Your task to perform on an android device: Turn on the flashlight Image 0: 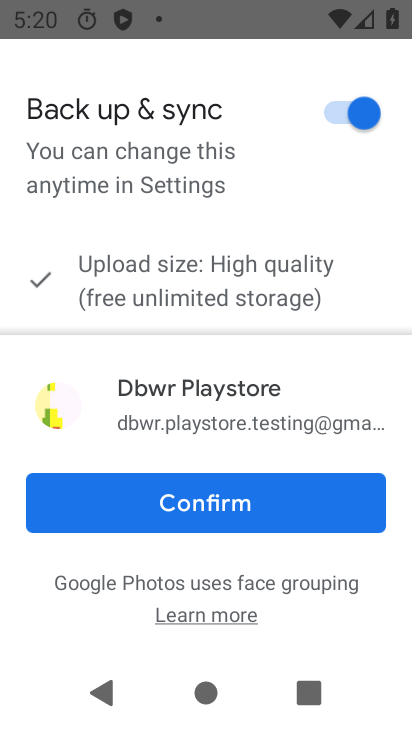
Step 0: press home button
Your task to perform on an android device: Turn on the flashlight Image 1: 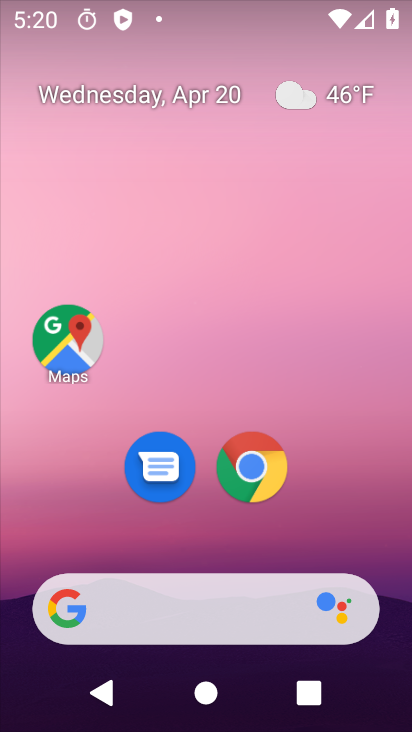
Step 1: drag from (243, 257) to (314, 17)
Your task to perform on an android device: Turn on the flashlight Image 2: 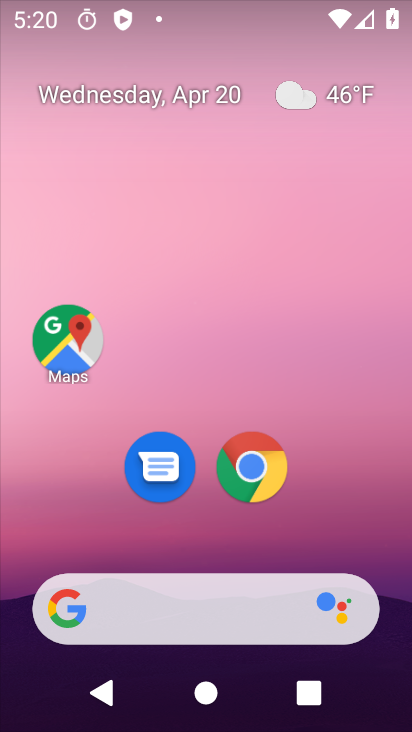
Step 2: drag from (214, 563) to (296, 1)
Your task to perform on an android device: Turn on the flashlight Image 3: 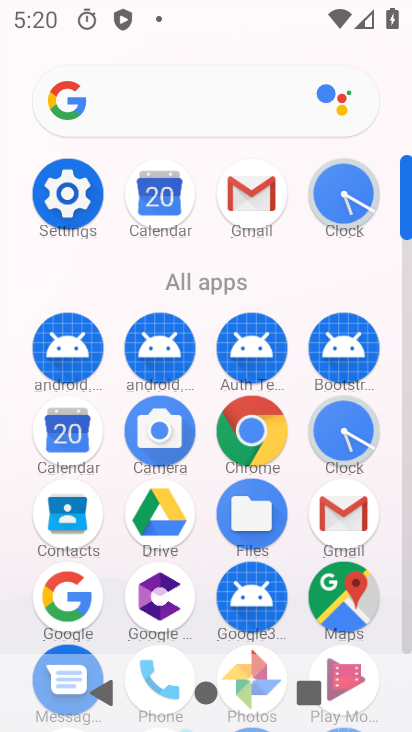
Step 3: click (70, 187)
Your task to perform on an android device: Turn on the flashlight Image 4: 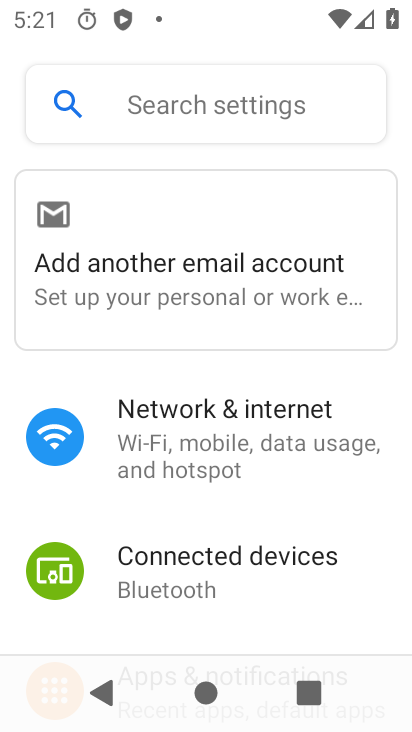
Step 4: click (219, 100)
Your task to perform on an android device: Turn on the flashlight Image 5: 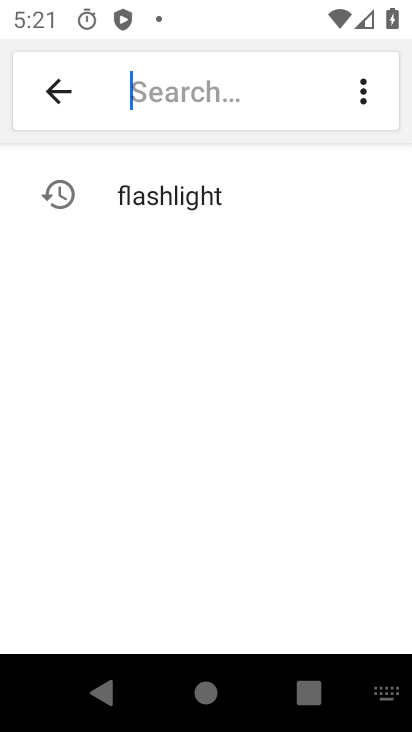
Step 5: type "flashlight"
Your task to perform on an android device: Turn on the flashlight Image 6: 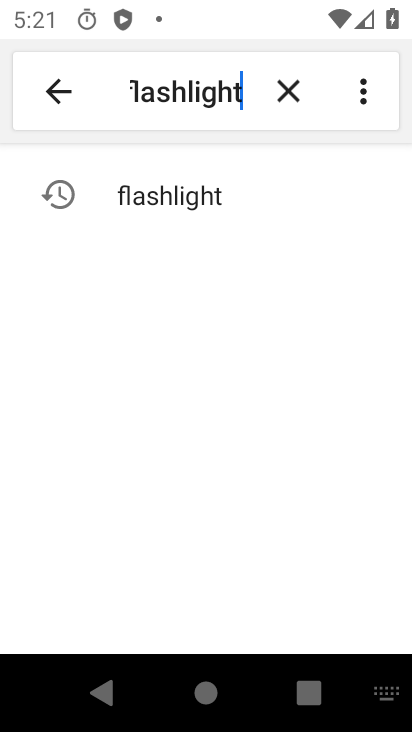
Step 6: click (226, 190)
Your task to perform on an android device: Turn on the flashlight Image 7: 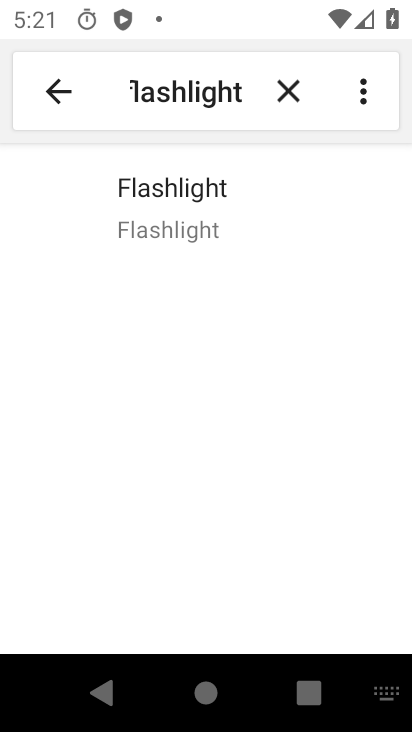
Step 7: click (209, 195)
Your task to perform on an android device: Turn on the flashlight Image 8: 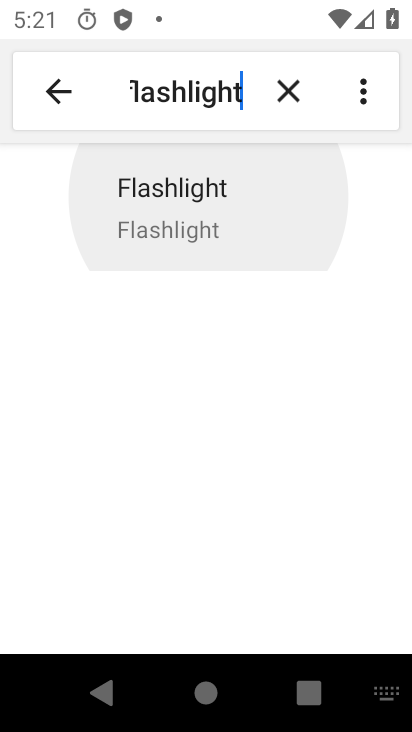
Step 8: click (209, 195)
Your task to perform on an android device: Turn on the flashlight Image 9: 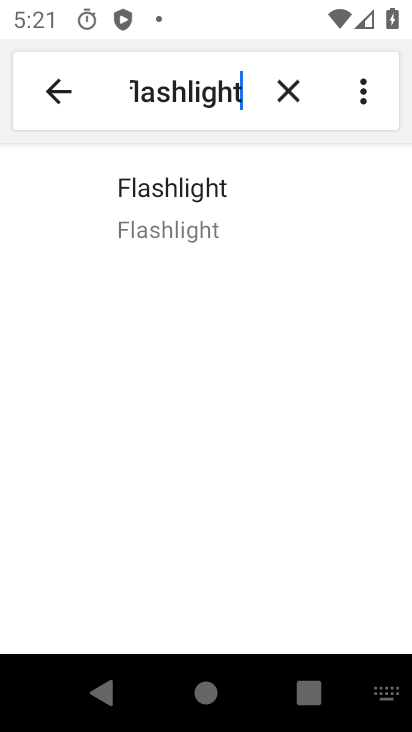
Step 9: task complete